Your task to perform on an android device: move a message to another label in the gmail app Image 0: 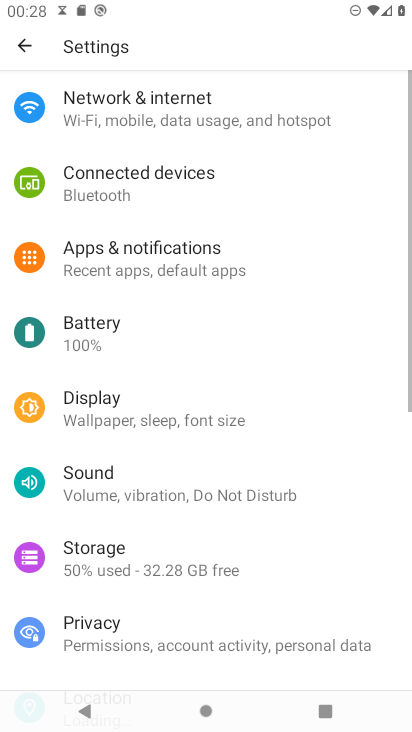
Step 0: press home button
Your task to perform on an android device: move a message to another label in the gmail app Image 1: 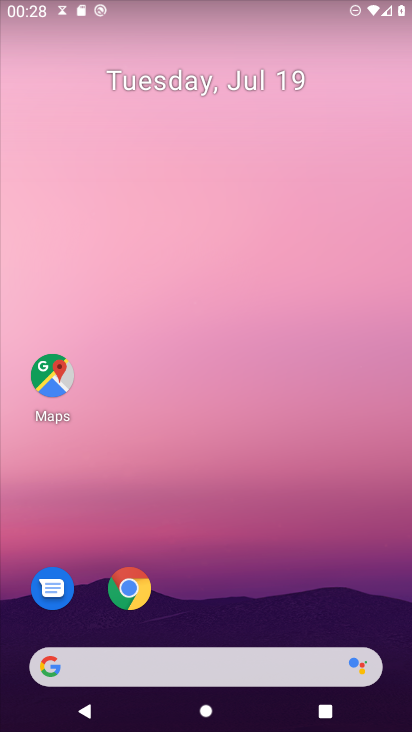
Step 1: drag from (261, 599) to (279, 39)
Your task to perform on an android device: move a message to another label in the gmail app Image 2: 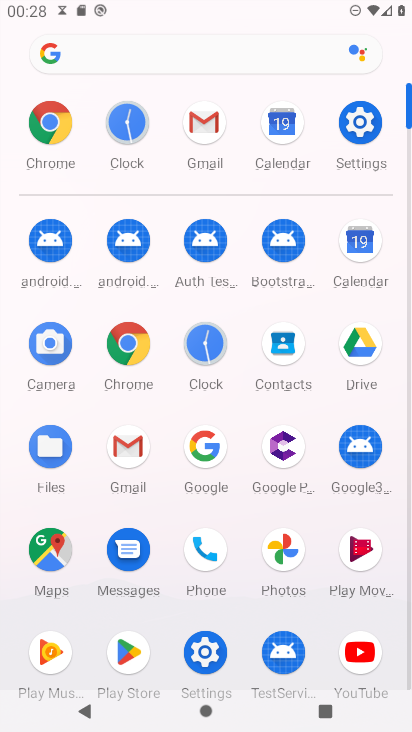
Step 2: click (205, 135)
Your task to perform on an android device: move a message to another label in the gmail app Image 3: 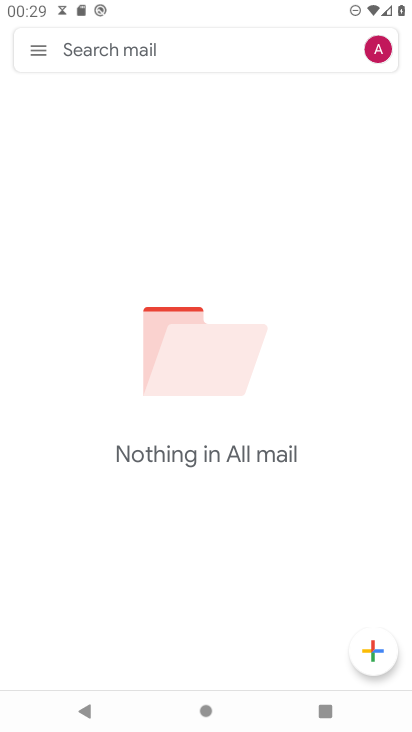
Step 3: click (34, 50)
Your task to perform on an android device: move a message to another label in the gmail app Image 4: 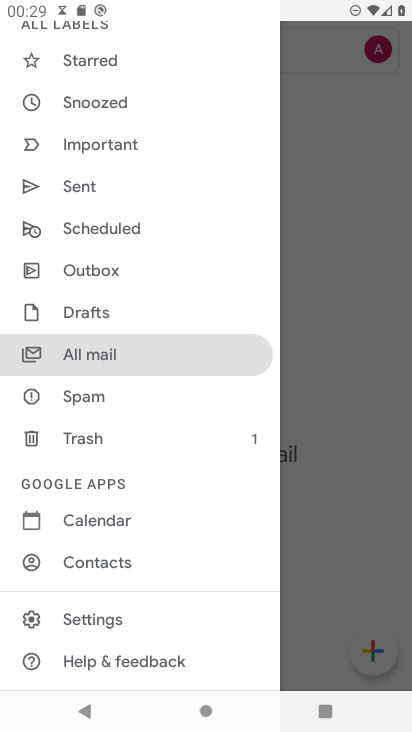
Step 4: click (101, 345)
Your task to perform on an android device: move a message to another label in the gmail app Image 5: 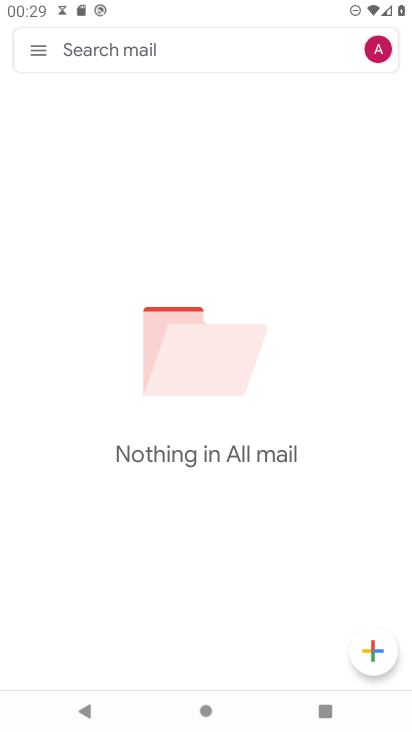
Step 5: task complete